Your task to perform on an android device: Search for vegetarian restaurants on Maps Image 0: 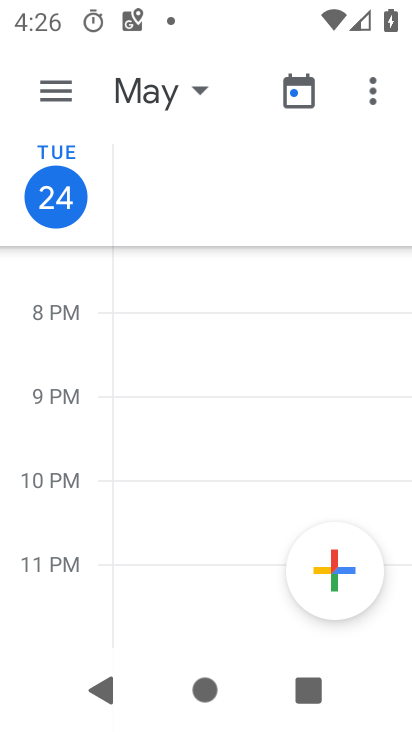
Step 0: press home button
Your task to perform on an android device: Search for vegetarian restaurants on Maps Image 1: 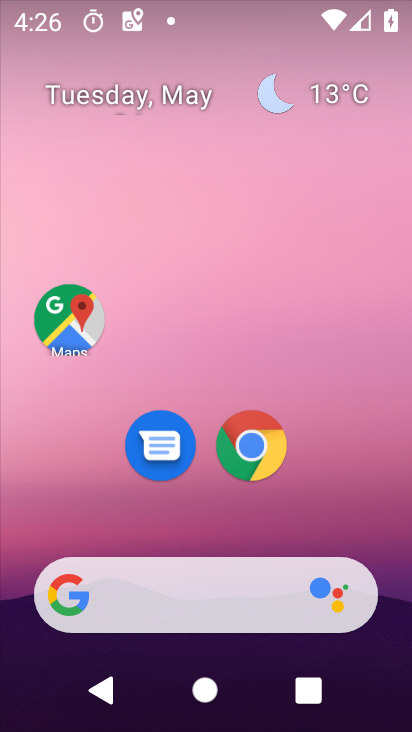
Step 1: click (63, 310)
Your task to perform on an android device: Search for vegetarian restaurants on Maps Image 2: 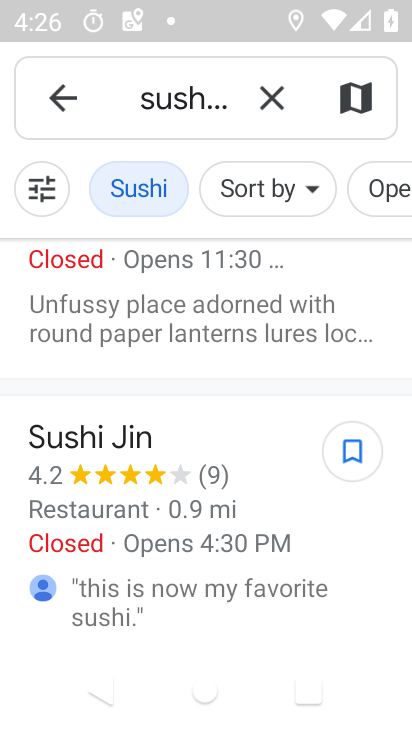
Step 2: click (258, 101)
Your task to perform on an android device: Search for vegetarian restaurants on Maps Image 3: 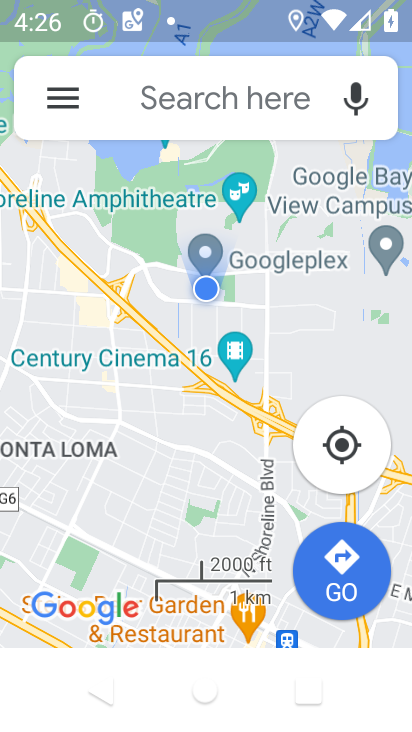
Step 3: click (158, 89)
Your task to perform on an android device: Search for vegetarian restaurants on Maps Image 4: 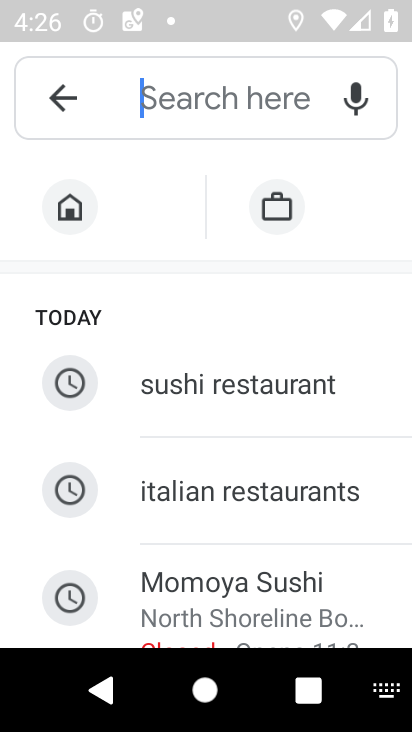
Step 4: drag from (234, 590) to (266, 229)
Your task to perform on an android device: Search for vegetarian restaurants on Maps Image 5: 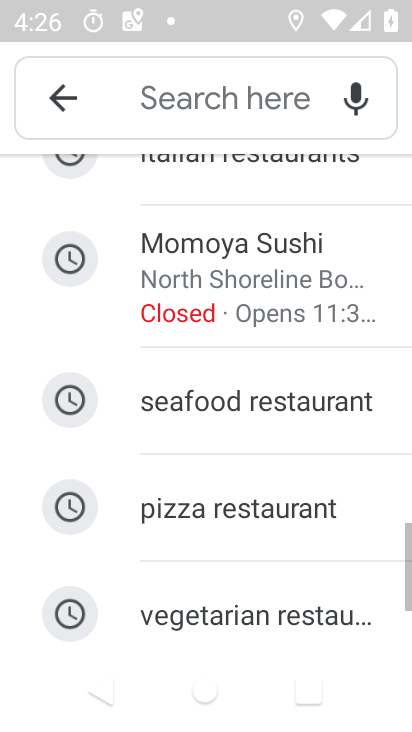
Step 5: drag from (228, 584) to (214, 292)
Your task to perform on an android device: Search for vegetarian restaurants on Maps Image 6: 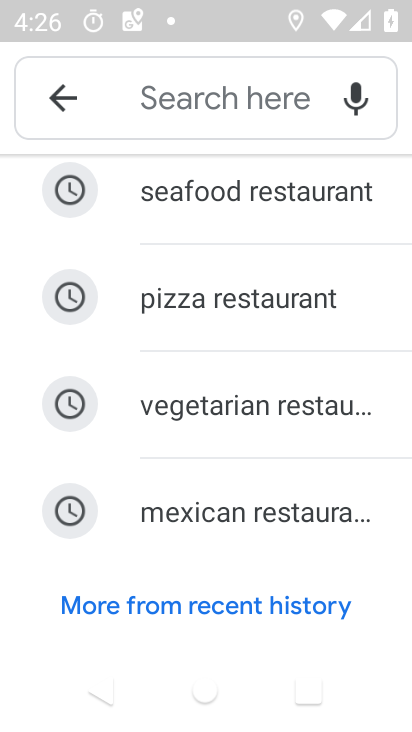
Step 6: click (185, 95)
Your task to perform on an android device: Search for vegetarian restaurants on Maps Image 7: 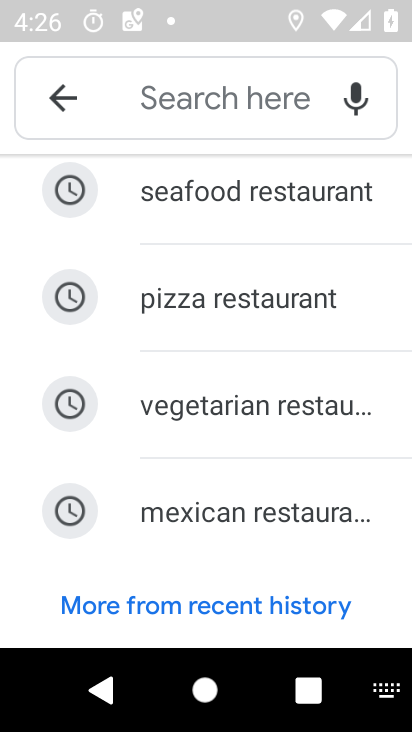
Step 7: type "vegetarian"
Your task to perform on an android device: Search for vegetarian restaurants on Maps Image 8: 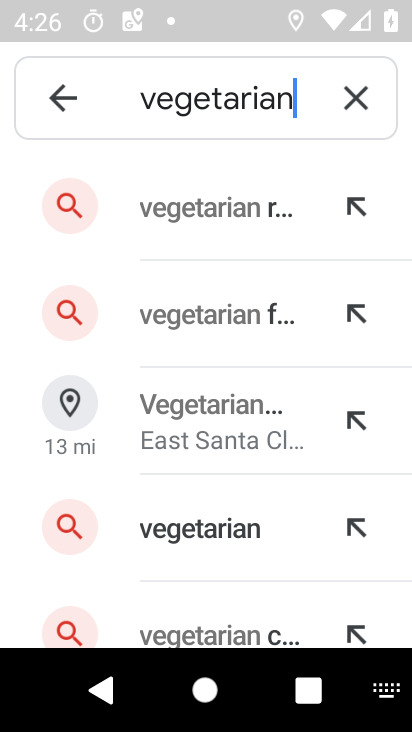
Step 8: click (190, 221)
Your task to perform on an android device: Search for vegetarian restaurants on Maps Image 9: 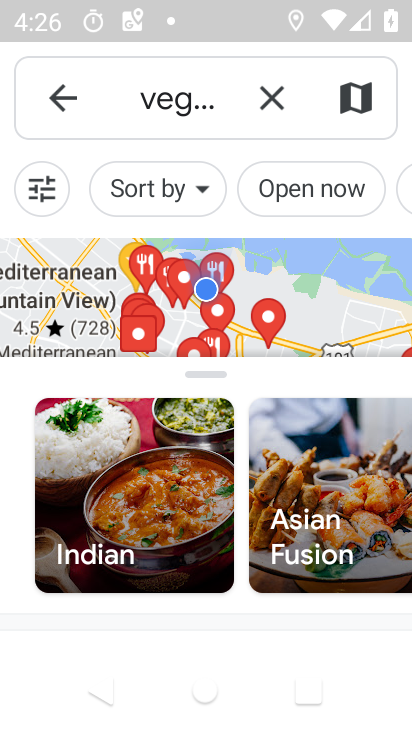
Step 9: task complete